Your task to perform on an android device: open a bookmark in the chrome app Image 0: 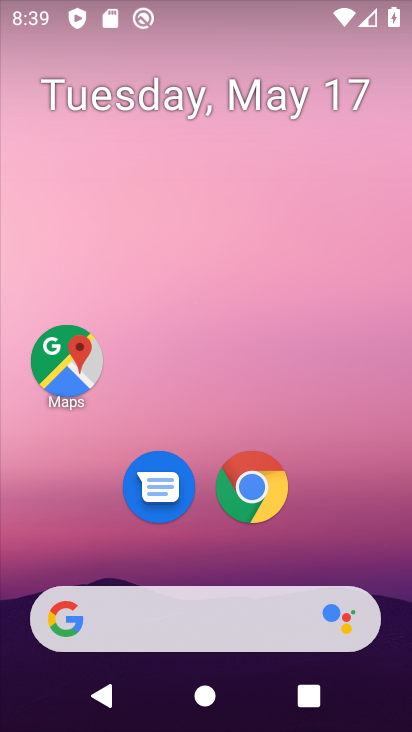
Step 0: drag from (223, 659) to (308, 296)
Your task to perform on an android device: open a bookmark in the chrome app Image 1: 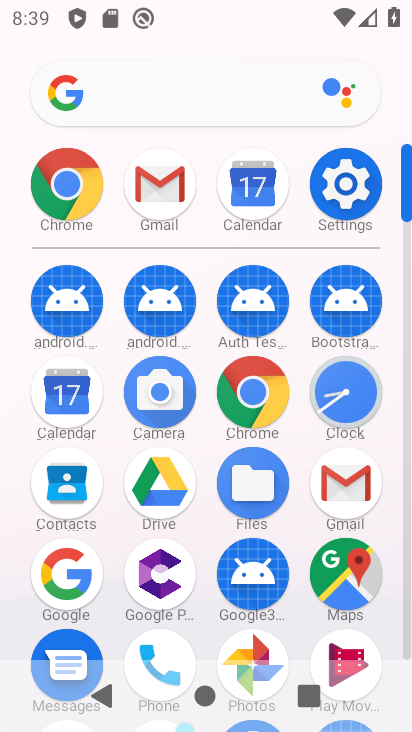
Step 1: click (72, 209)
Your task to perform on an android device: open a bookmark in the chrome app Image 2: 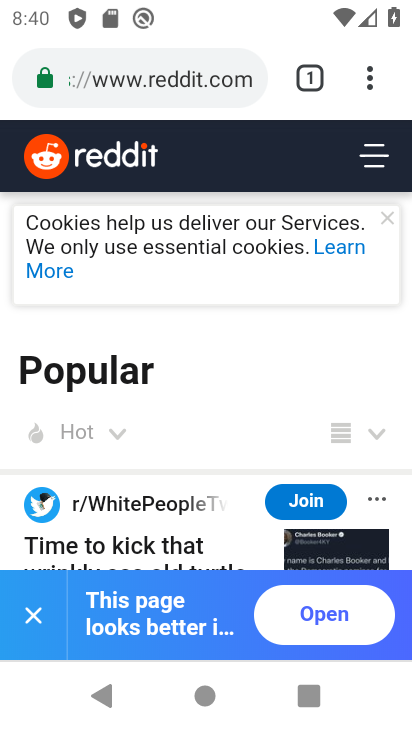
Step 2: click (379, 93)
Your task to perform on an android device: open a bookmark in the chrome app Image 3: 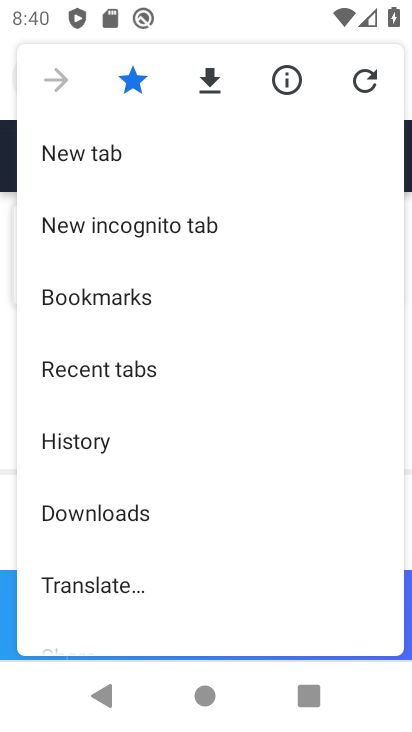
Step 3: click (138, 285)
Your task to perform on an android device: open a bookmark in the chrome app Image 4: 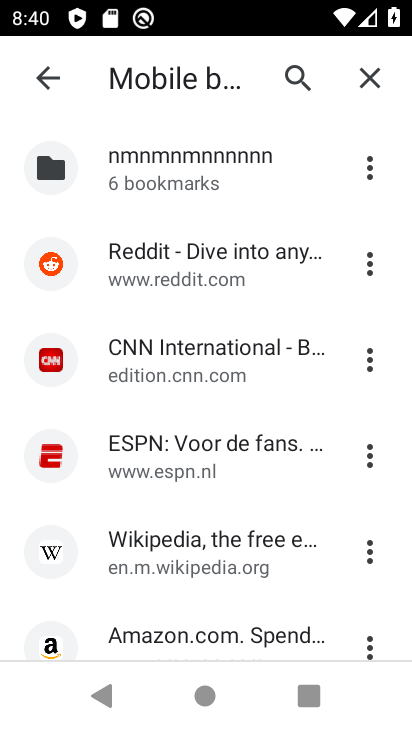
Step 4: click (153, 439)
Your task to perform on an android device: open a bookmark in the chrome app Image 5: 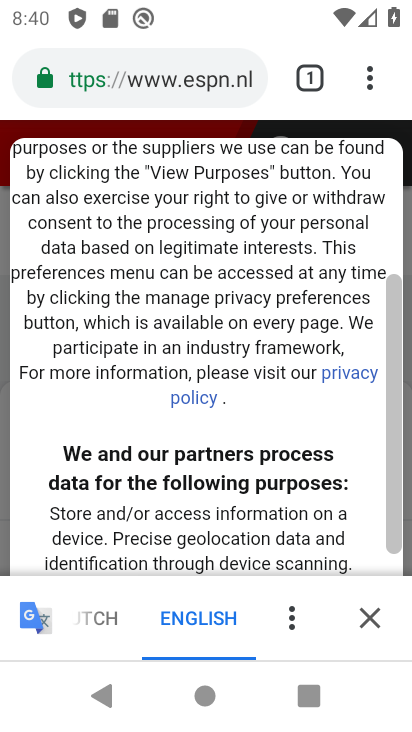
Step 5: task complete